Your task to perform on an android device: delete the emails in spam in the gmail app Image 0: 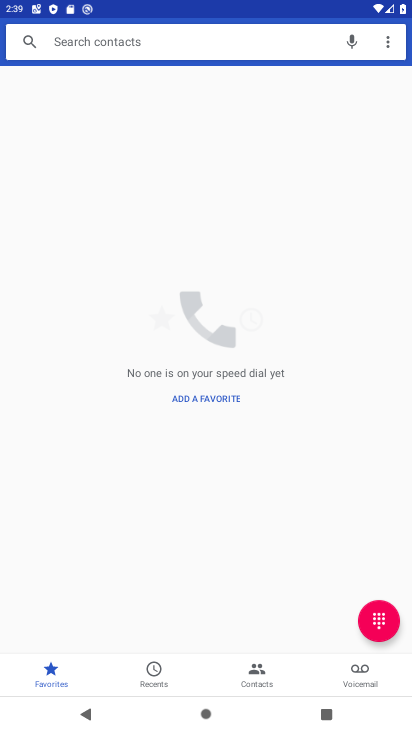
Step 0: press home button
Your task to perform on an android device: delete the emails in spam in the gmail app Image 1: 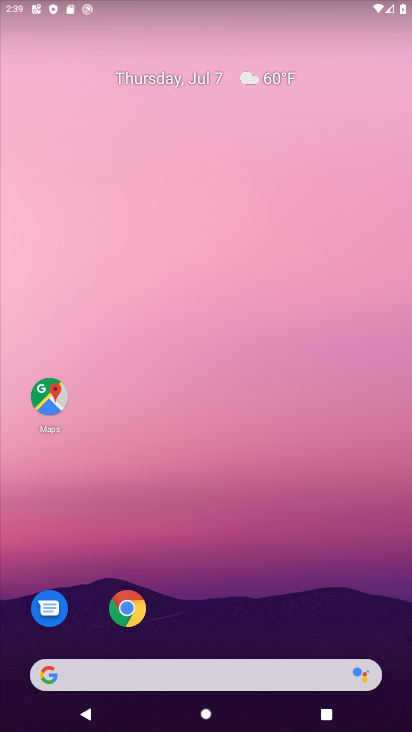
Step 1: drag from (229, 635) to (233, 96)
Your task to perform on an android device: delete the emails in spam in the gmail app Image 2: 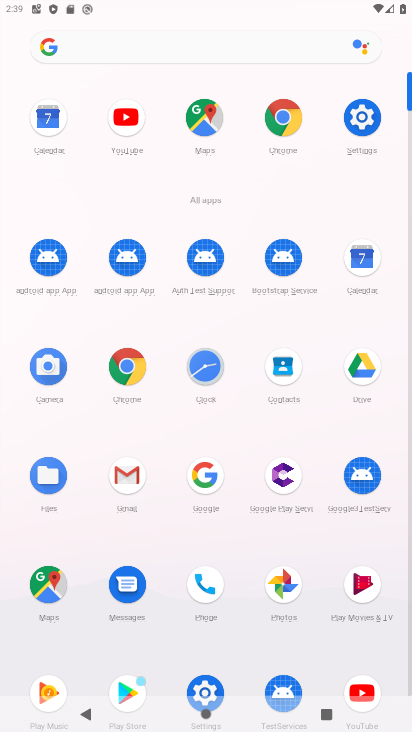
Step 2: click (123, 470)
Your task to perform on an android device: delete the emails in spam in the gmail app Image 3: 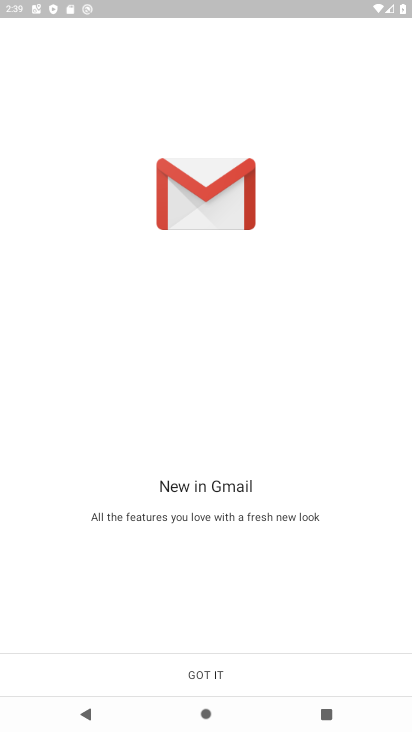
Step 3: click (194, 669)
Your task to perform on an android device: delete the emails in spam in the gmail app Image 4: 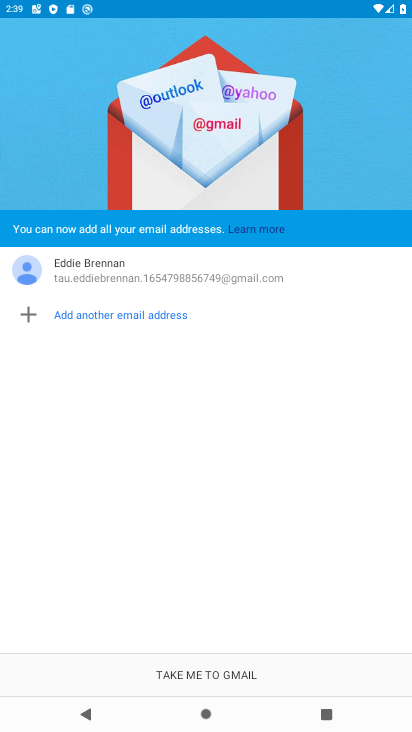
Step 4: click (189, 670)
Your task to perform on an android device: delete the emails in spam in the gmail app Image 5: 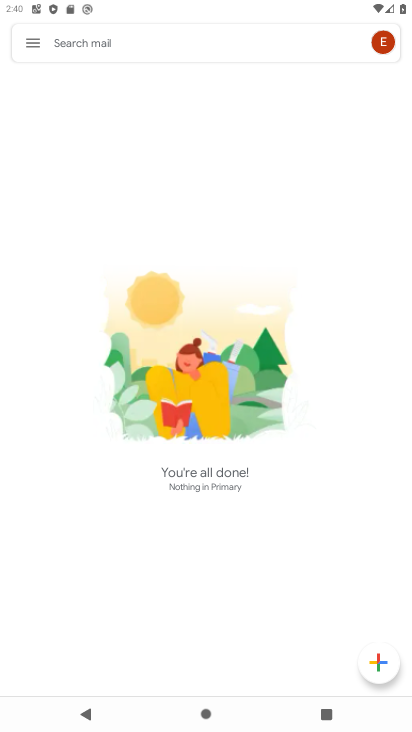
Step 5: click (31, 42)
Your task to perform on an android device: delete the emails in spam in the gmail app Image 6: 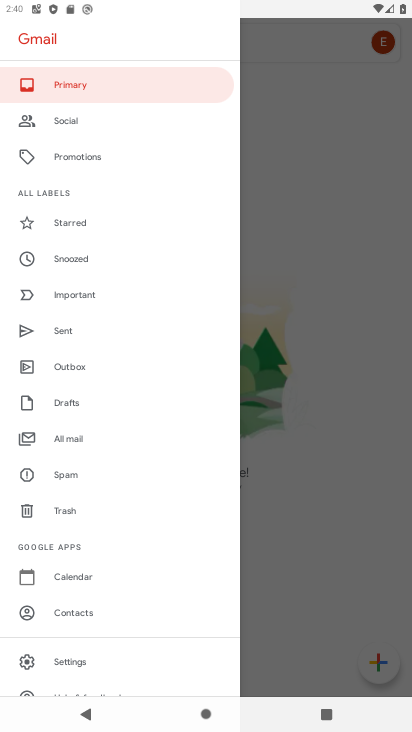
Step 6: click (81, 474)
Your task to perform on an android device: delete the emails in spam in the gmail app Image 7: 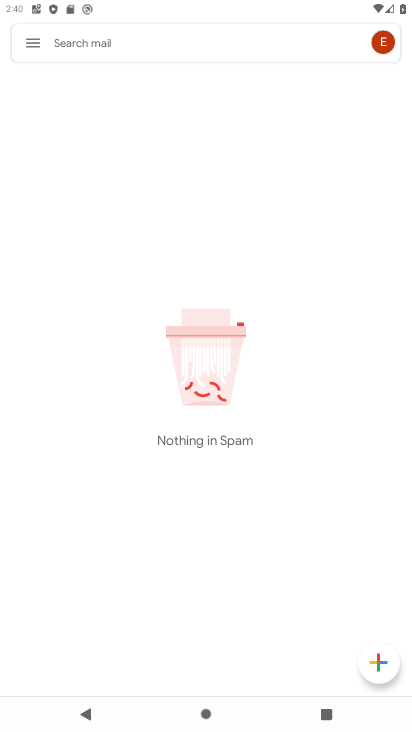
Step 7: task complete